Your task to perform on an android device: toggle data saver in the chrome app Image 0: 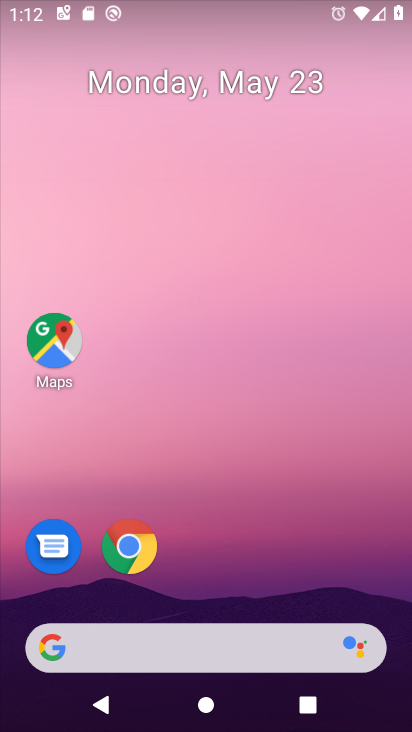
Step 0: drag from (158, 568) to (166, 271)
Your task to perform on an android device: toggle data saver in the chrome app Image 1: 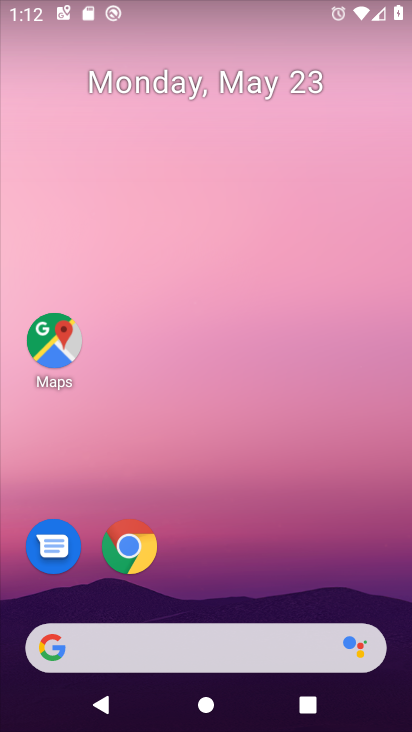
Step 1: drag from (251, 537) to (253, 179)
Your task to perform on an android device: toggle data saver in the chrome app Image 2: 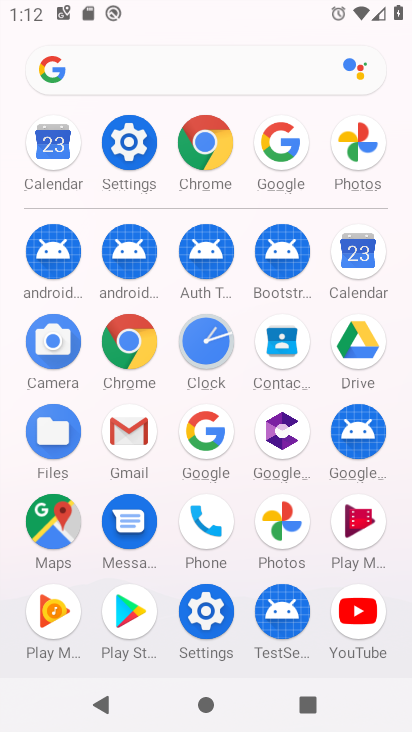
Step 2: click (209, 144)
Your task to perform on an android device: toggle data saver in the chrome app Image 3: 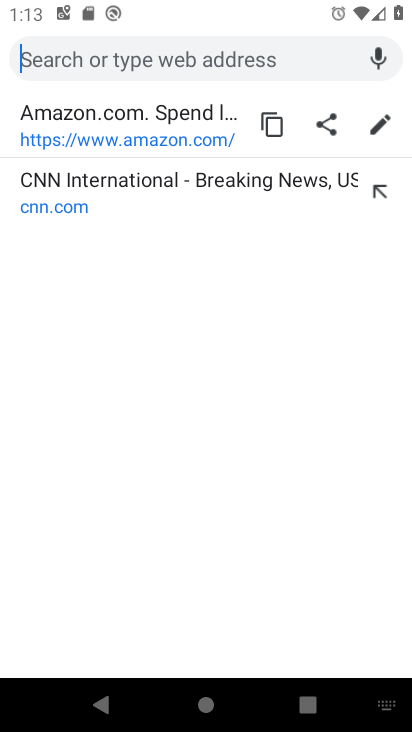
Step 3: press back button
Your task to perform on an android device: toggle data saver in the chrome app Image 4: 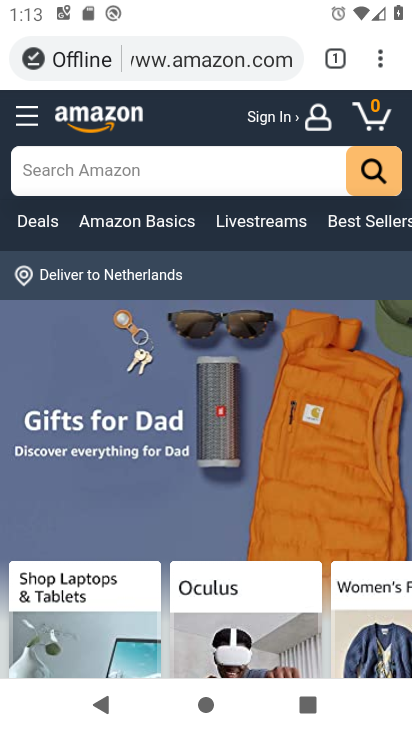
Step 4: click (385, 55)
Your task to perform on an android device: toggle data saver in the chrome app Image 5: 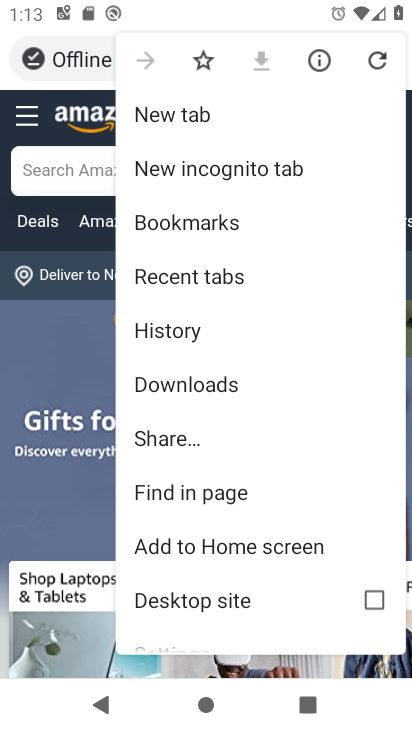
Step 5: drag from (209, 516) to (254, 189)
Your task to perform on an android device: toggle data saver in the chrome app Image 6: 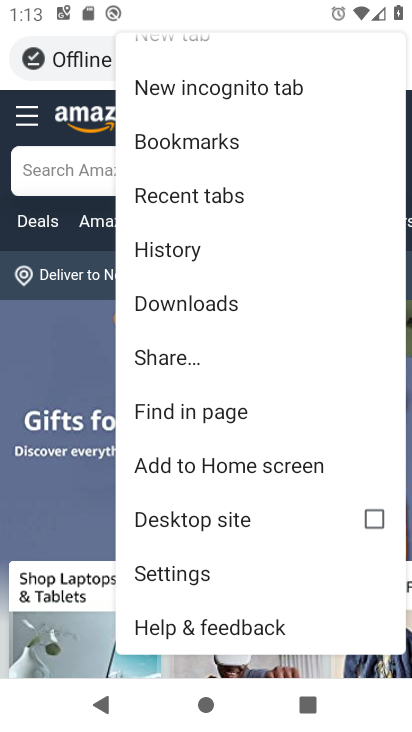
Step 6: click (209, 579)
Your task to perform on an android device: toggle data saver in the chrome app Image 7: 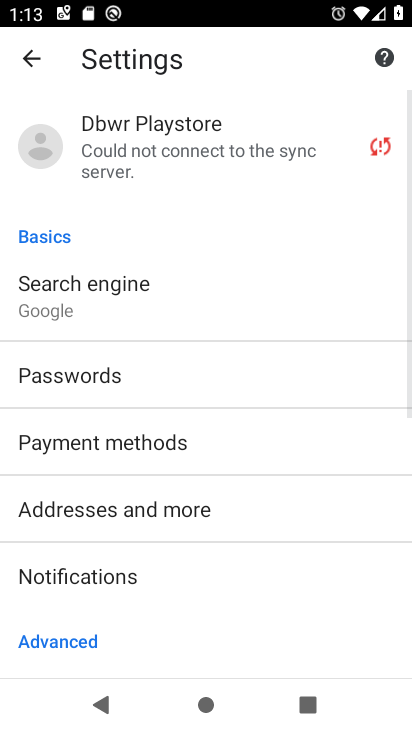
Step 7: drag from (209, 579) to (210, 146)
Your task to perform on an android device: toggle data saver in the chrome app Image 8: 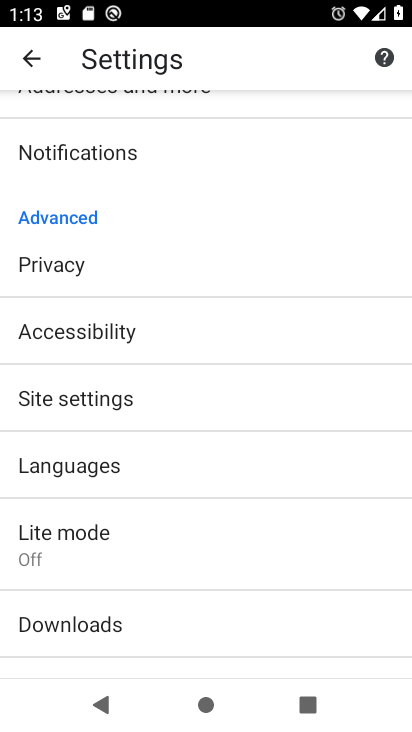
Step 8: drag from (241, 552) to (233, 317)
Your task to perform on an android device: toggle data saver in the chrome app Image 9: 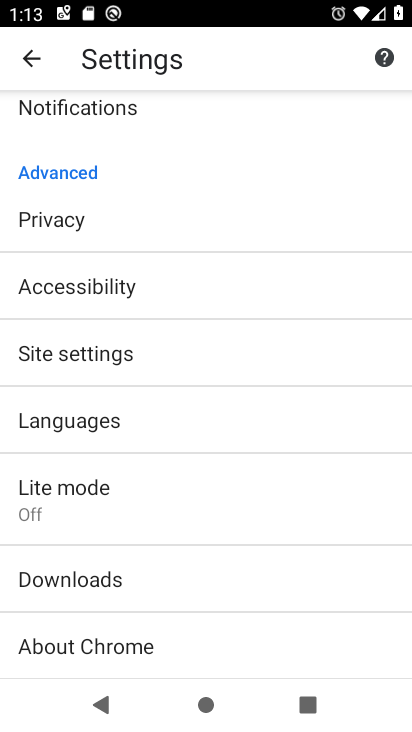
Step 9: click (148, 492)
Your task to perform on an android device: toggle data saver in the chrome app Image 10: 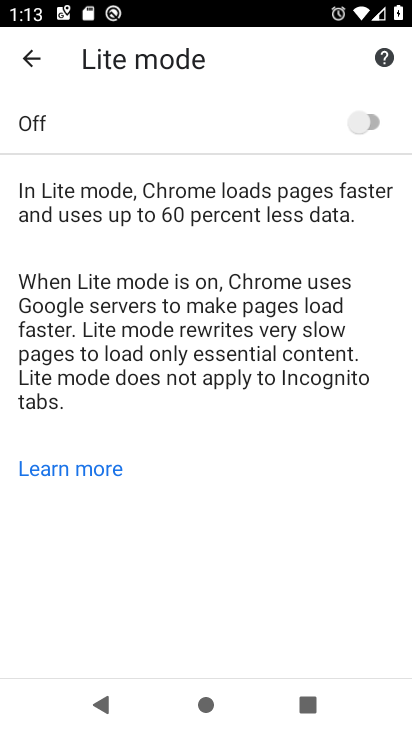
Step 10: click (375, 107)
Your task to perform on an android device: toggle data saver in the chrome app Image 11: 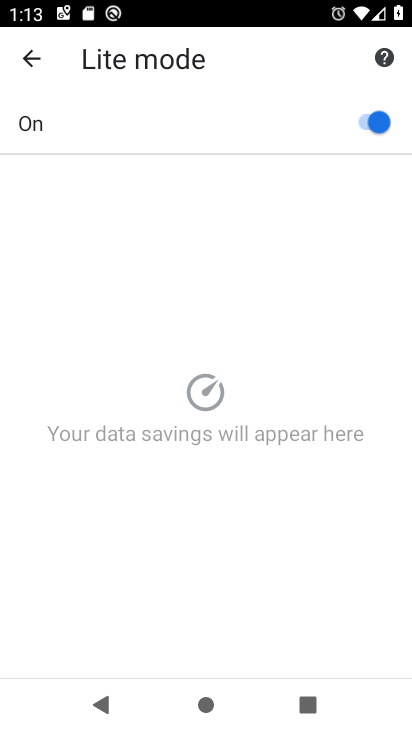
Step 11: task complete